Your task to perform on an android device: see creations saved in the google photos Image 0: 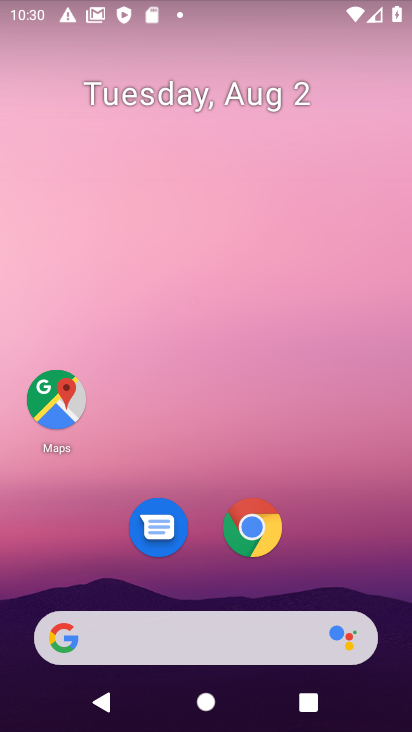
Step 0: click (214, 64)
Your task to perform on an android device: see creations saved in the google photos Image 1: 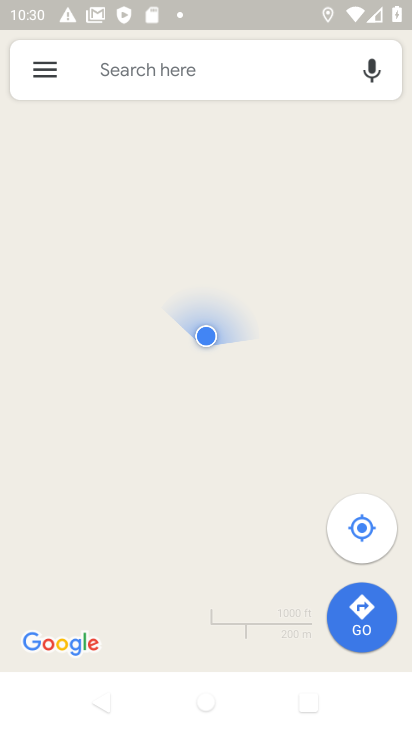
Step 1: press home button
Your task to perform on an android device: see creations saved in the google photos Image 2: 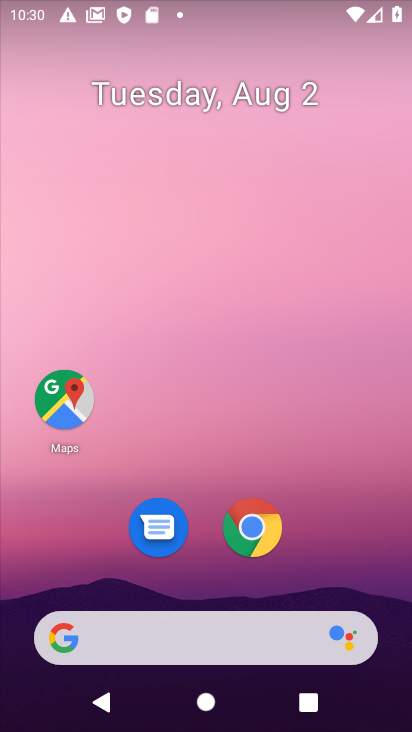
Step 2: drag from (207, 588) to (201, 6)
Your task to perform on an android device: see creations saved in the google photos Image 3: 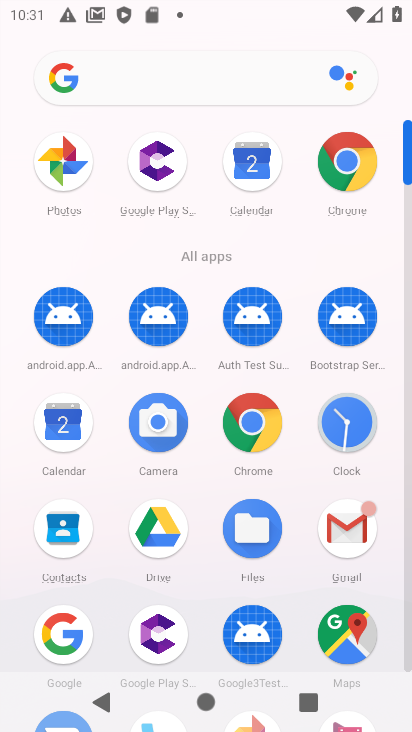
Step 3: drag from (201, 586) to (199, 62)
Your task to perform on an android device: see creations saved in the google photos Image 4: 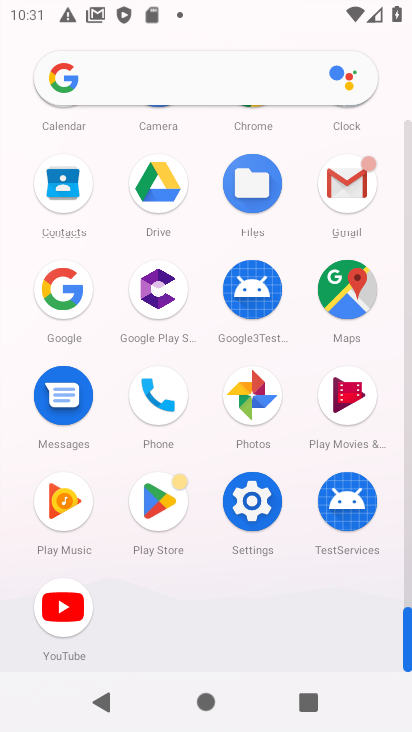
Step 4: click (248, 387)
Your task to perform on an android device: see creations saved in the google photos Image 5: 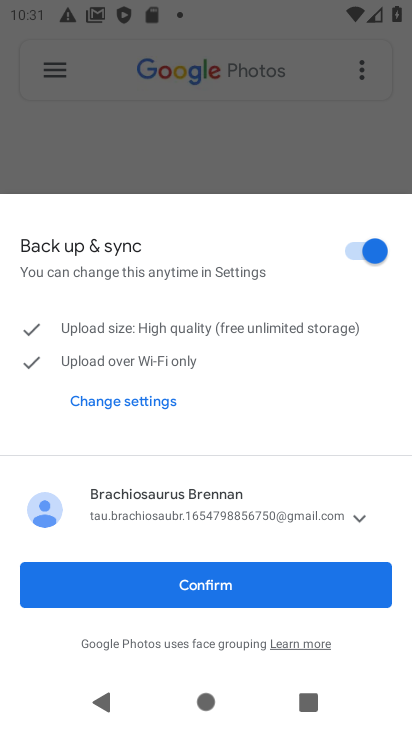
Step 5: click (207, 585)
Your task to perform on an android device: see creations saved in the google photos Image 6: 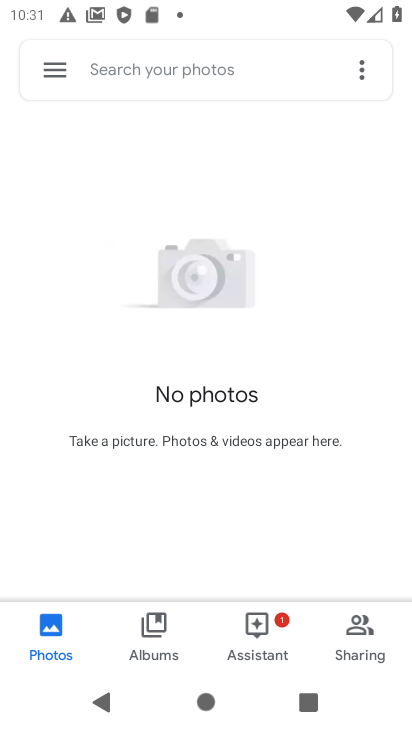
Step 6: click (56, 64)
Your task to perform on an android device: see creations saved in the google photos Image 7: 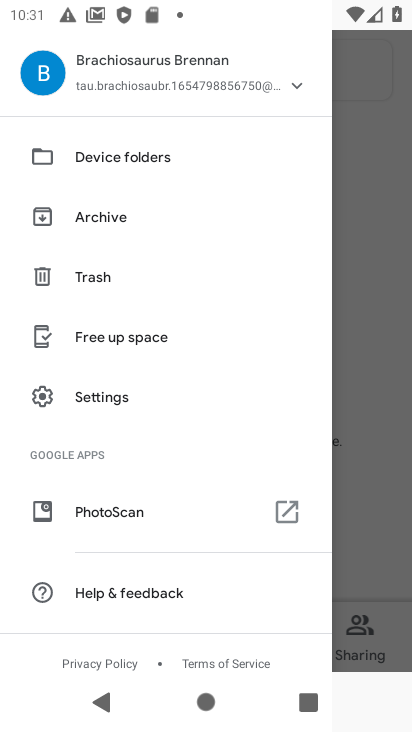
Step 7: click (134, 394)
Your task to perform on an android device: see creations saved in the google photos Image 8: 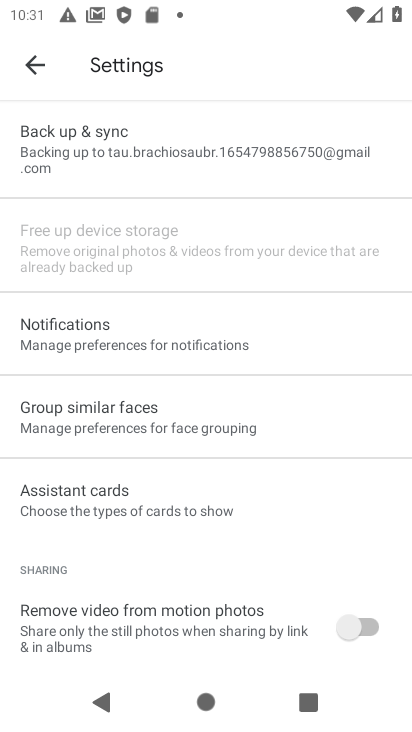
Step 8: click (37, 72)
Your task to perform on an android device: see creations saved in the google photos Image 9: 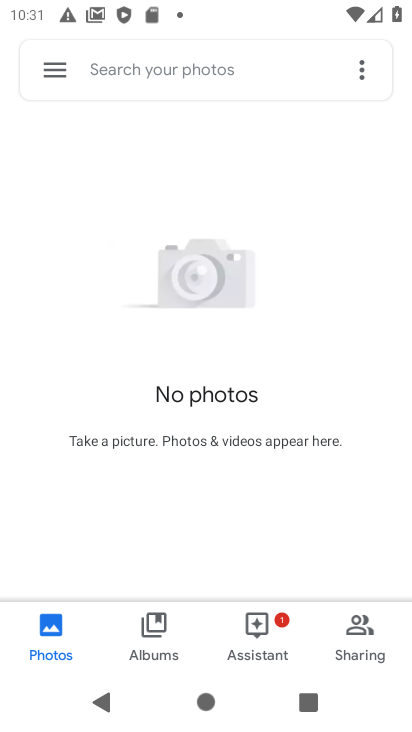
Step 9: click (136, 68)
Your task to perform on an android device: see creations saved in the google photos Image 10: 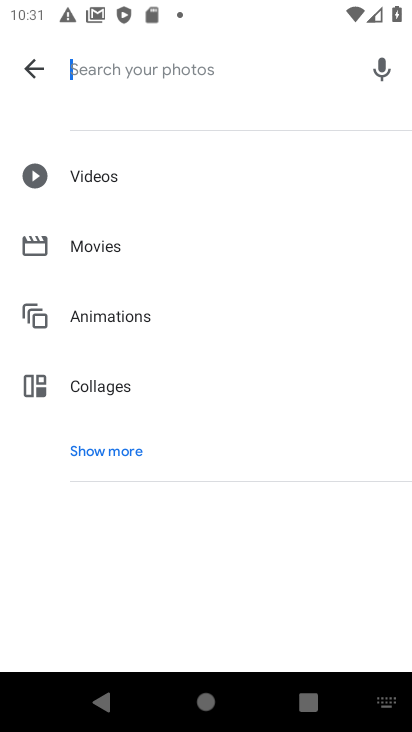
Step 10: click (98, 452)
Your task to perform on an android device: see creations saved in the google photos Image 11: 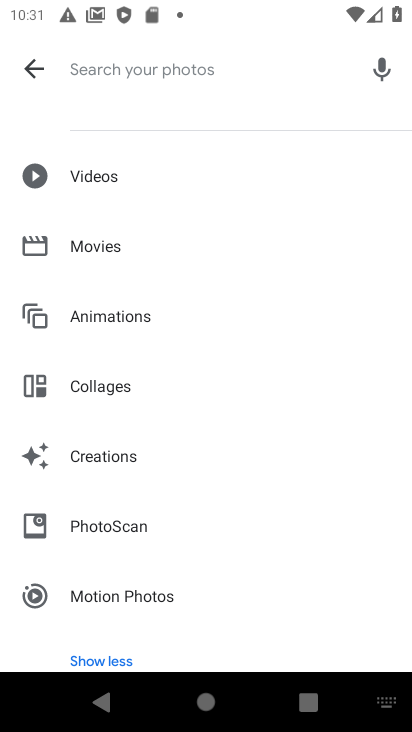
Step 11: click (146, 454)
Your task to perform on an android device: see creations saved in the google photos Image 12: 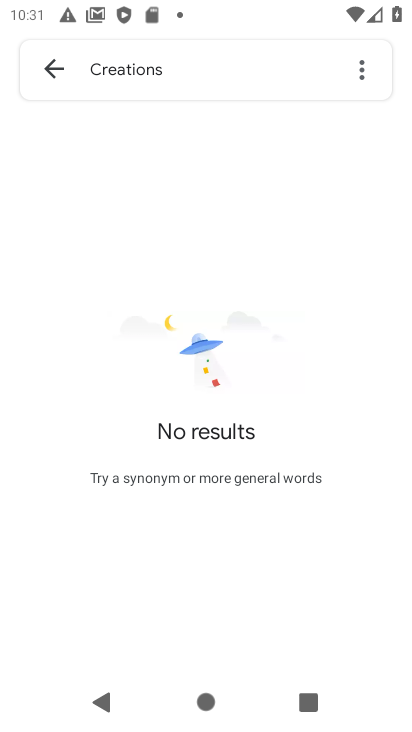
Step 12: task complete